Your task to perform on an android device: Open sound settings Image 0: 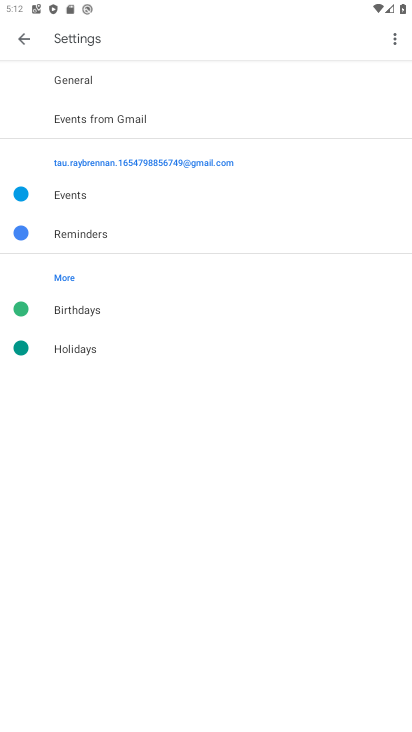
Step 0: drag from (186, 727) to (148, 433)
Your task to perform on an android device: Open sound settings Image 1: 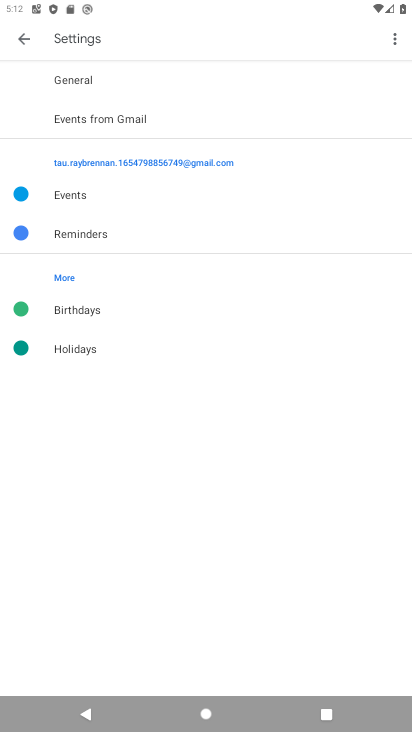
Step 1: click (20, 45)
Your task to perform on an android device: Open sound settings Image 2: 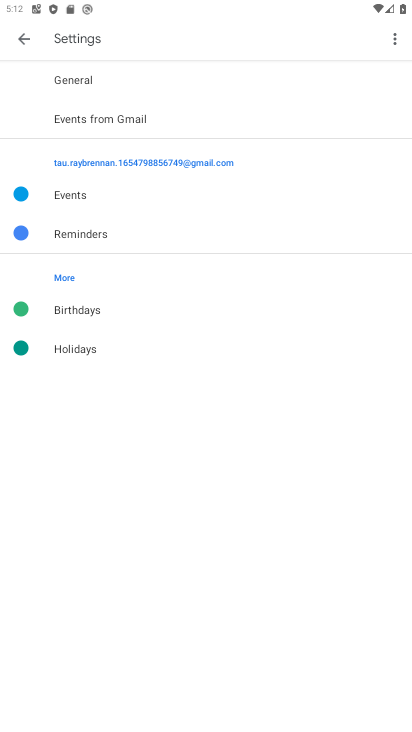
Step 2: press home button
Your task to perform on an android device: Open sound settings Image 3: 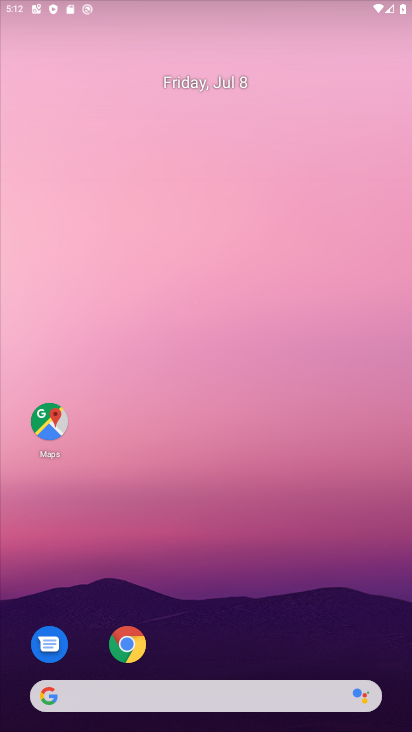
Step 3: drag from (148, 261) to (122, 32)
Your task to perform on an android device: Open sound settings Image 4: 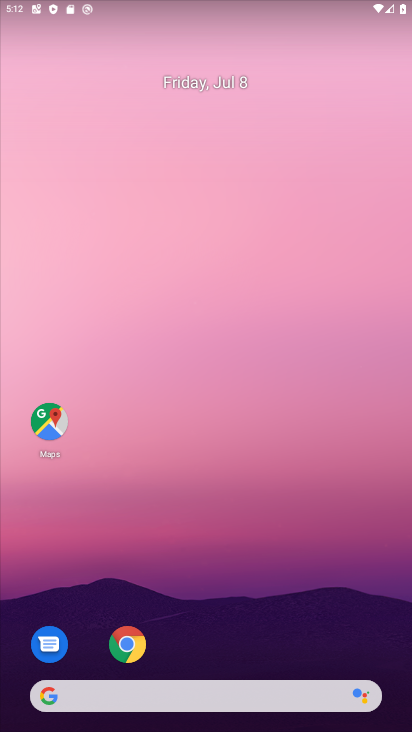
Step 4: drag from (194, 663) to (256, 49)
Your task to perform on an android device: Open sound settings Image 5: 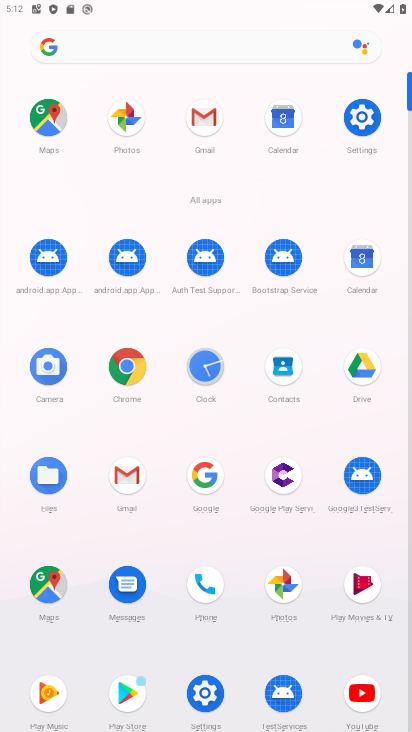
Step 5: click (195, 679)
Your task to perform on an android device: Open sound settings Image 6: 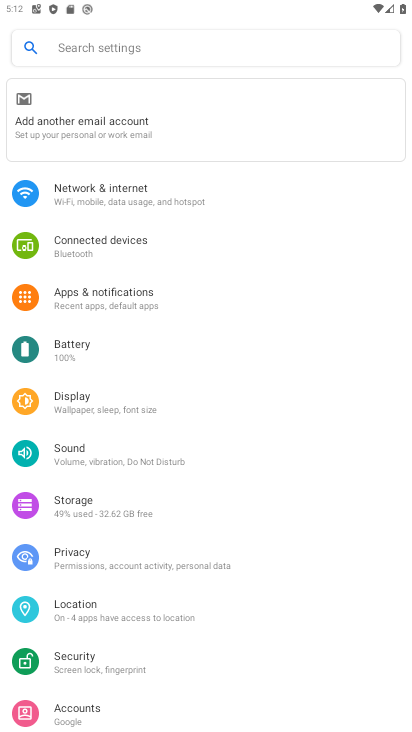
Step 6: click (87, 452)
Your task to perform on an android device: Open sound settings Image 7: 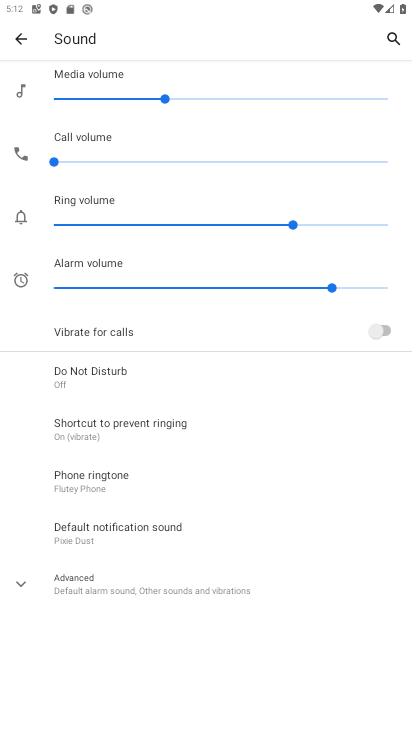
Step 7: task complete